Your task to perform on an android device: Go to network settings Image 0: 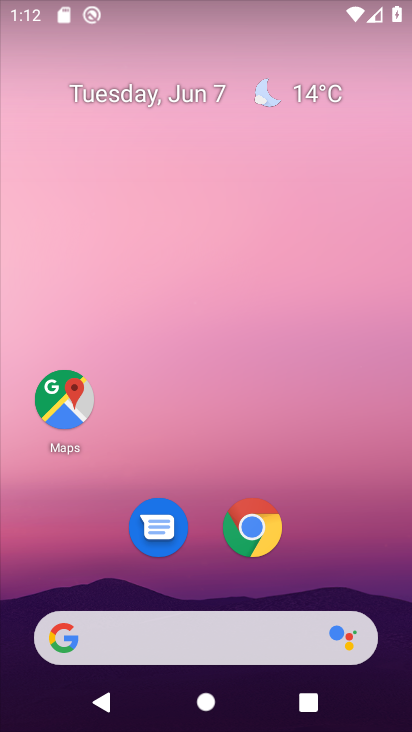
Step 0: drag from (359, 562) to (246, 104)
Your task to perform on an android device: Go to network settings Image 1: 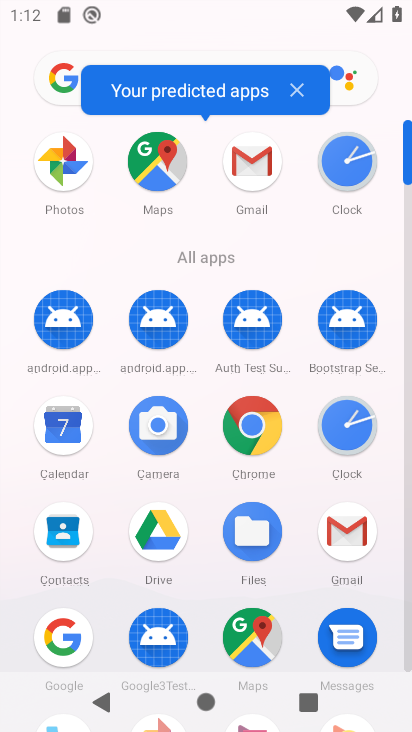
Step 1: click (405, 666)
Your task to perform on an android device: Go to network settings Image 2: 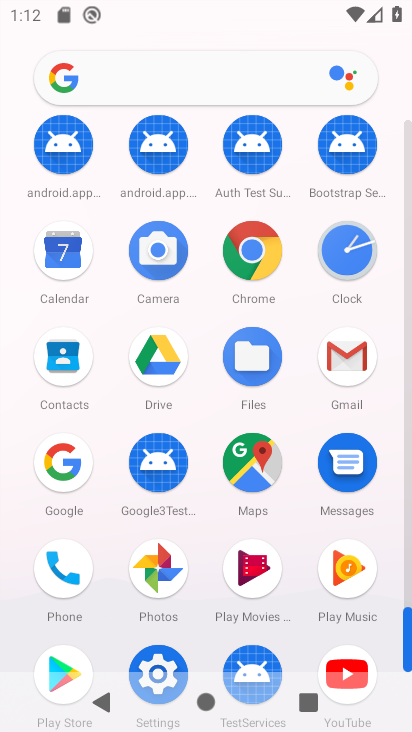
Step 2: click (168, 657)
Your task to perform on an android device: Go to network settings Image 3: 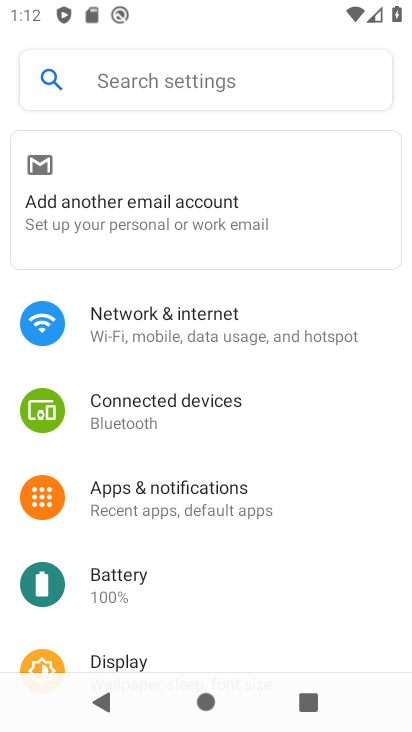
Step 3: click (233, 319)
Your task to perform on an android device: Go to network settings Image 4: 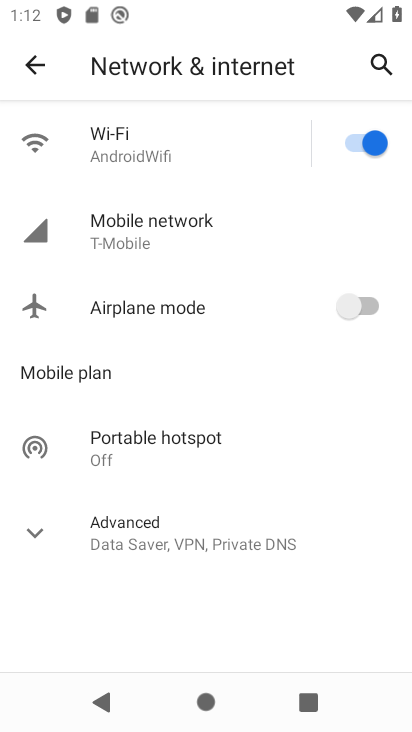
Step 4: task complete